Your task to perform on an android device: Search for sushi restaurants on Maps Image 0: 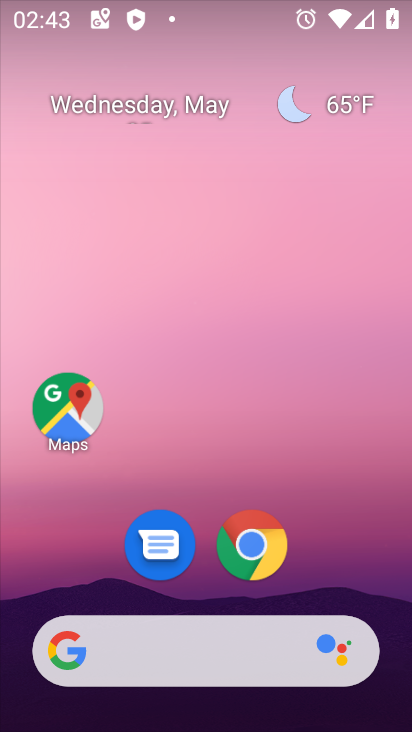
Step 0: click (66, 398)
Your task to perform on an android device: Search for sushi restaurants on Maps Image 1: 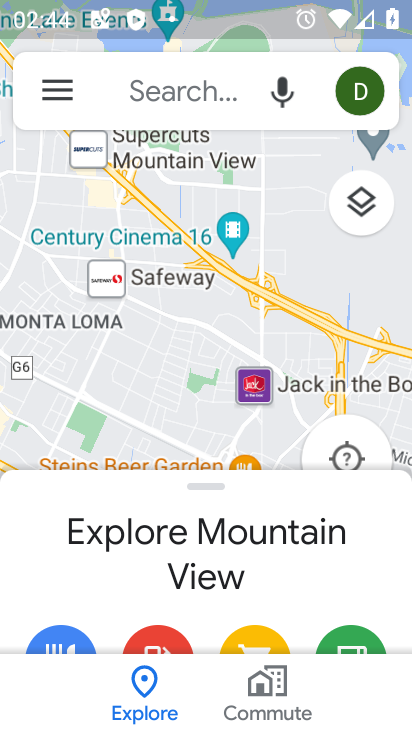
Step 1: click (196, 83)
Your task to perform on an android device: Search for sushi restaurants on Maps Image 2: 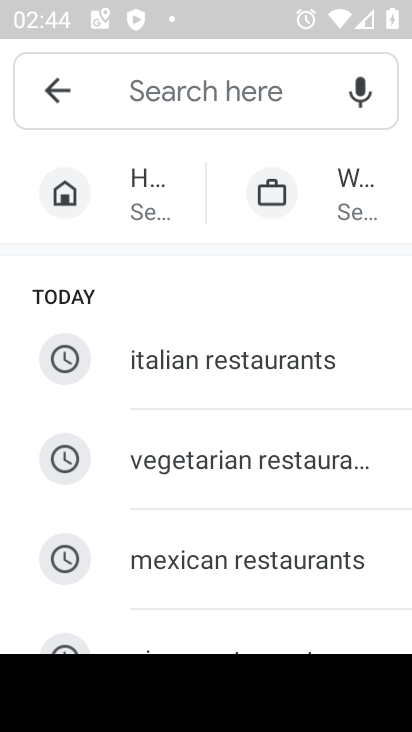
Step 2: drag from (232, 547) to (231, 175)
Your task to perform on an android device: Search for sushi restaurants on Maps Image 3: 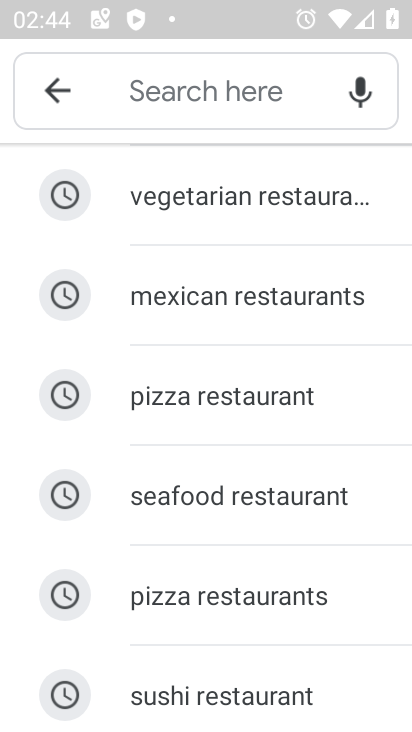
Step 3: click (222, 692)
Your task to perform on an android device: Search for sushi restaurants on Maps Image 4: 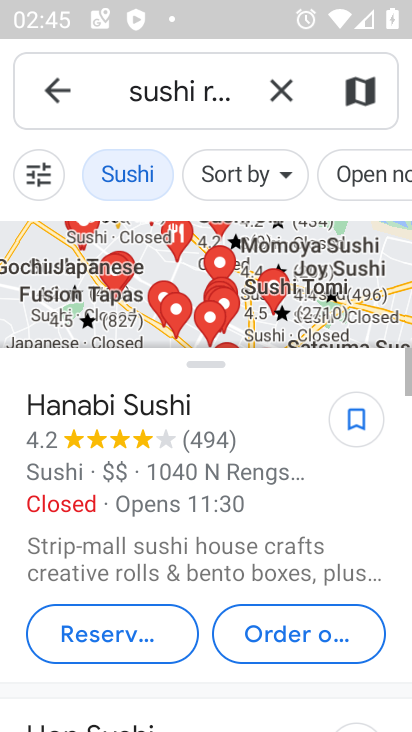
Step 4: task complete